Your task to perform on an android device: Go to Google Image 0: 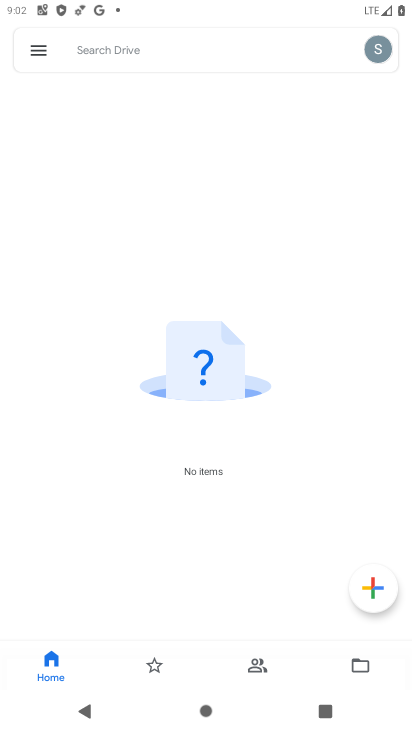
Step 0: press home button
Your task to perform on an android device: Go to Google Image 1: 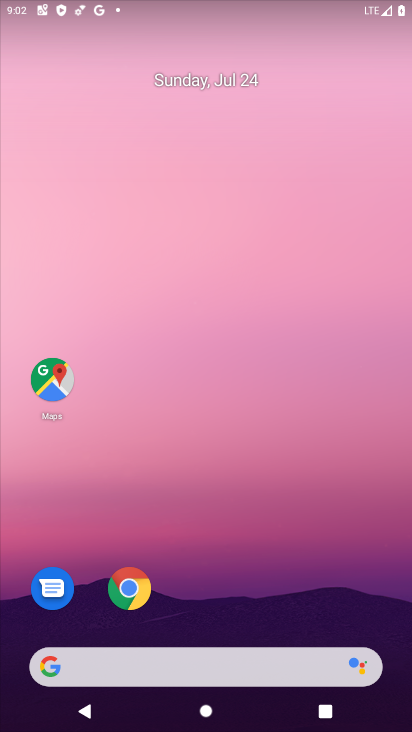
Step 1: drag from (210, 649) to (150, 119)
Your task to perform on an android device: Go to Google Image 2: 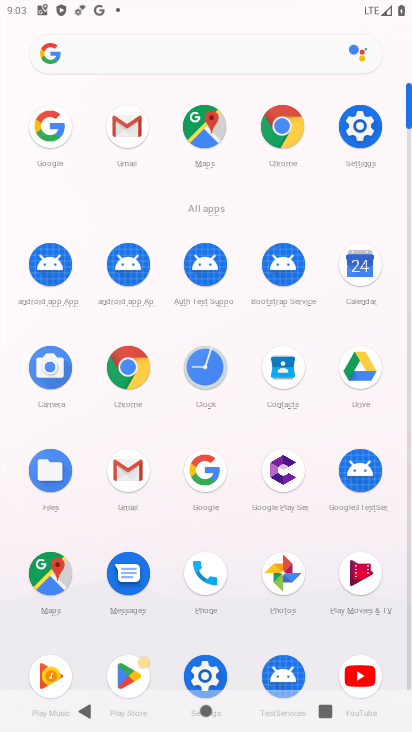
Step 2: click (204, 472)
Your task to perform on an android device: Go to Google Image 3: 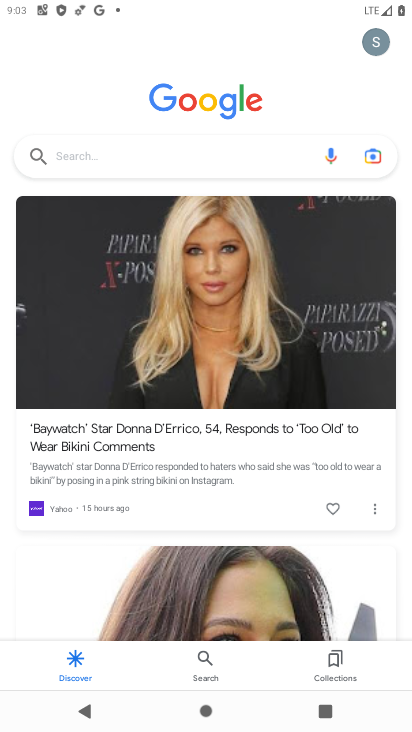
Step 3: task complete